Your task to perform on an android device: uninstall "Upside-Cash back on gas & food" Image 0: 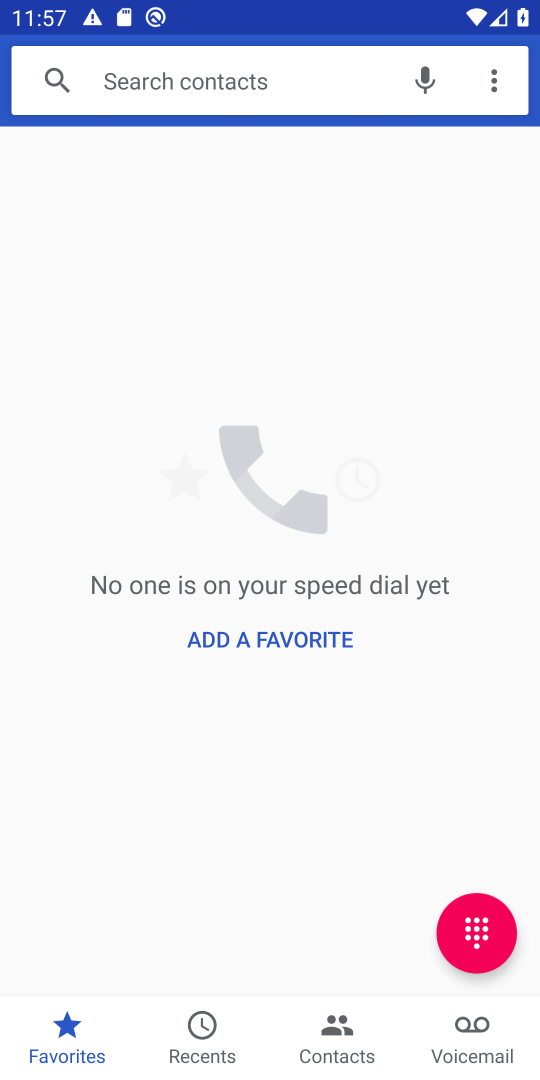
Step 0: press home button
Your task to perform on an android device: uninstall "Upside-Cash back on gas & food" Image 1: 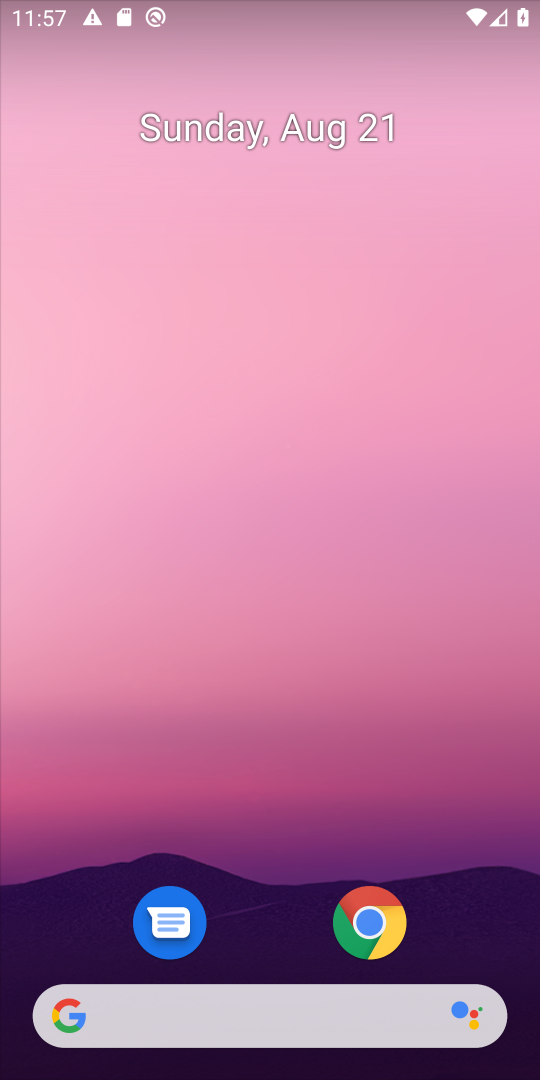
Step 1: drag from (273, 958) to (470, 135)
Your task to perform on an android device: uninstall "Upside-Cash back on gas & food" Image 2: 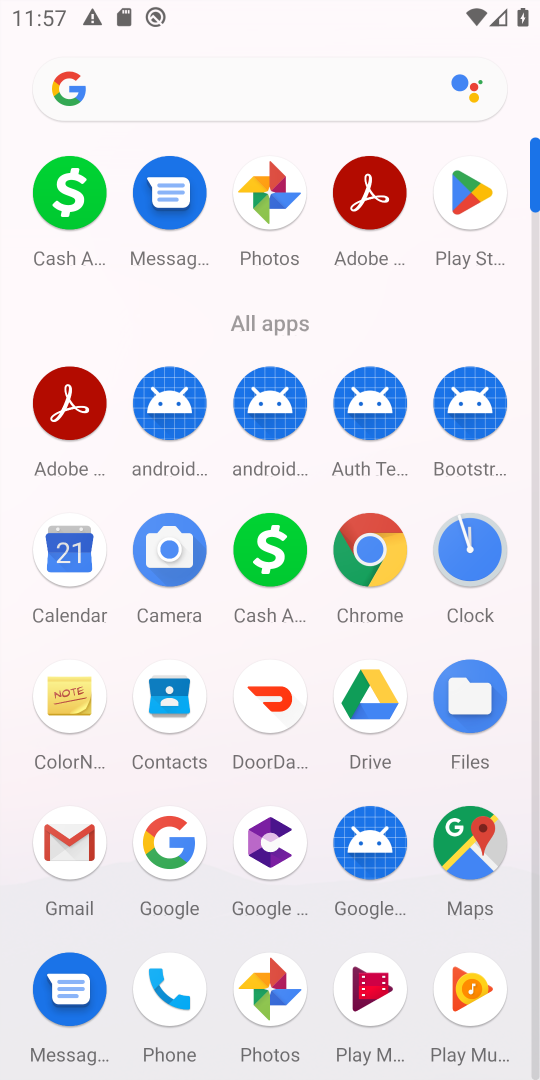
Step 2: click (446, 195)
Your task to perform on an android device: uninstall "Upside-Cash back on gas & food" Image 3: 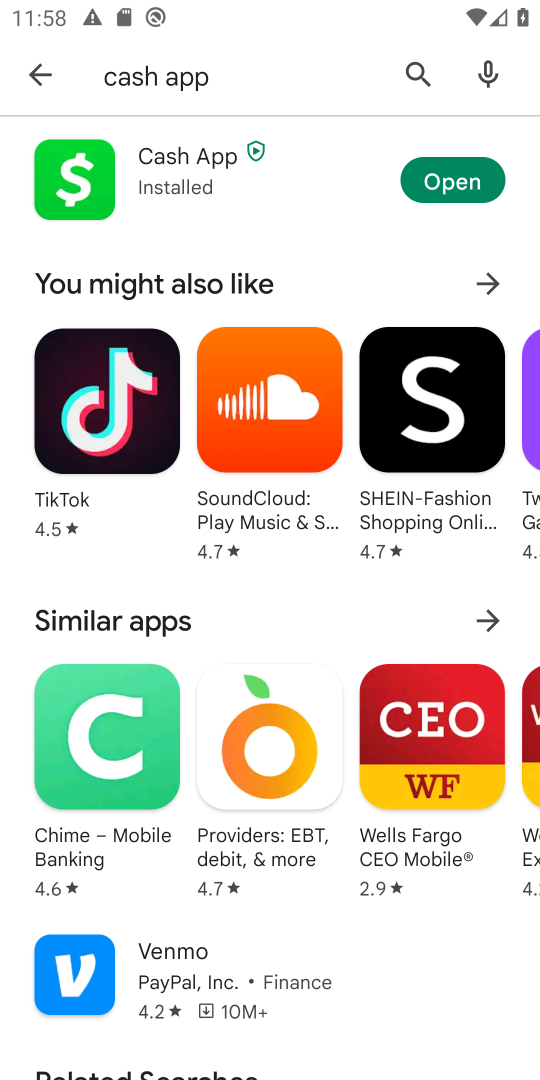
Step 3: click (23, 74)
Your task to perform on an android device: uninstall "Upside-Cash back on gas & food" Image 4: 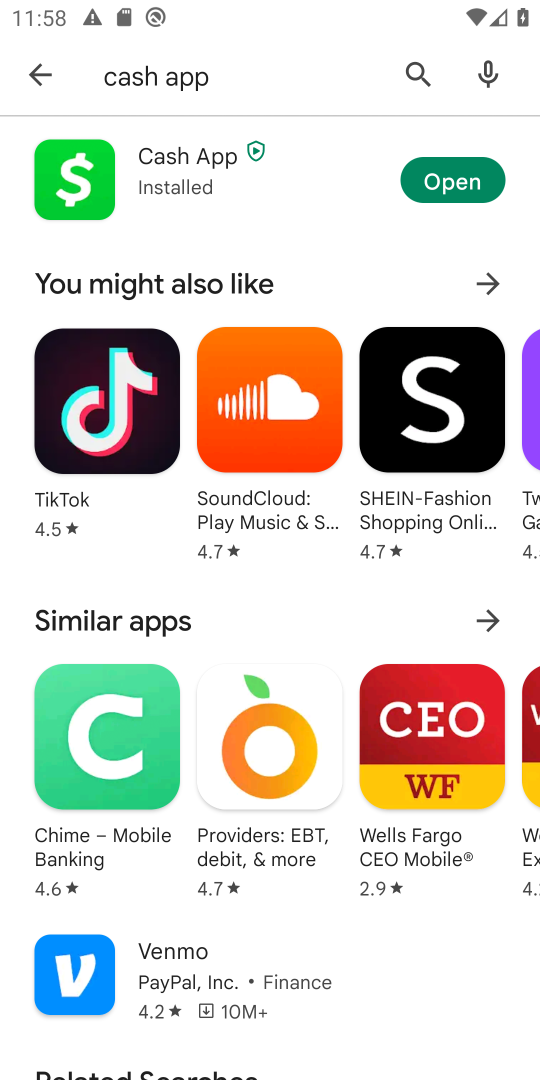
Step 4: click (423, 67)
Your task to perform on an android device: uninstall "Upside-Cash back on gas & food" Image 5: 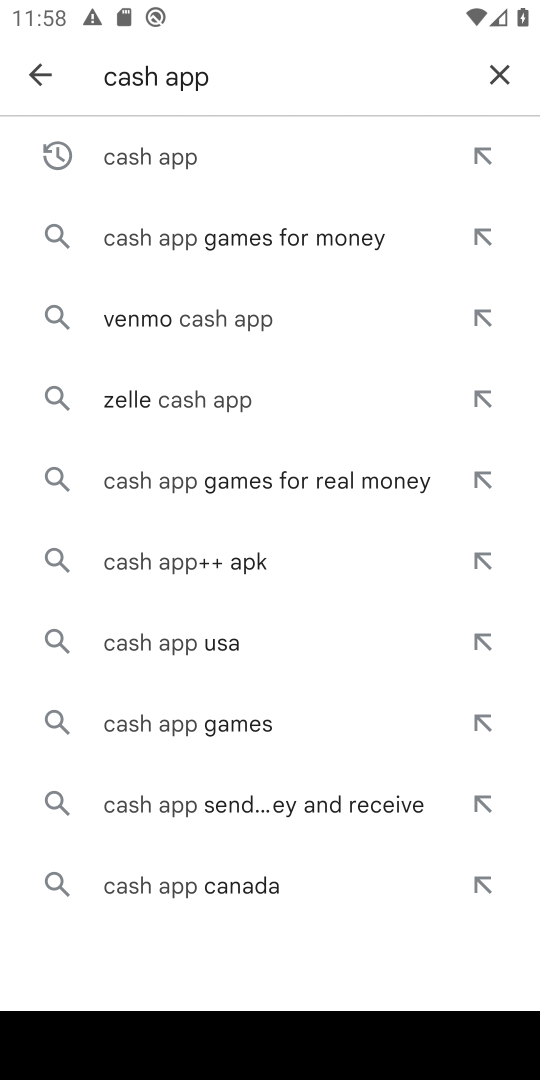
Step 5: click (492, 60)
Your task to perform on an android device: uninstall "Upside-Cash back on gas & food" Image 6: 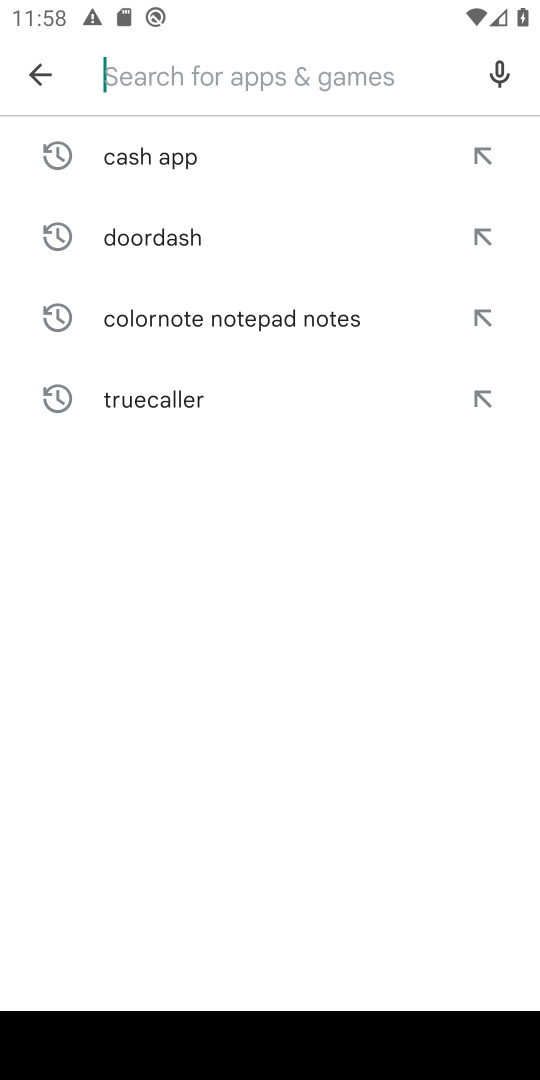
Step 6: type "Upside-Cash back on gas & food"
Your task to perform on an android device: uninstall "Upside-Cash back on gas & food" Image 7: 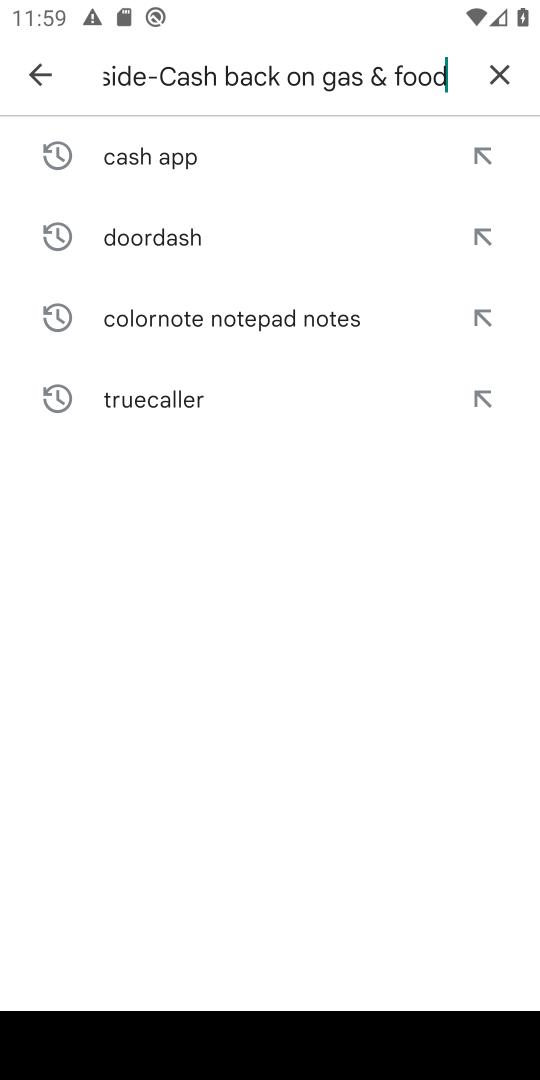
Step 7: type ""
Your task to perform on an android device: uninstall "Upside-Cash back on gas & food" Image 8: 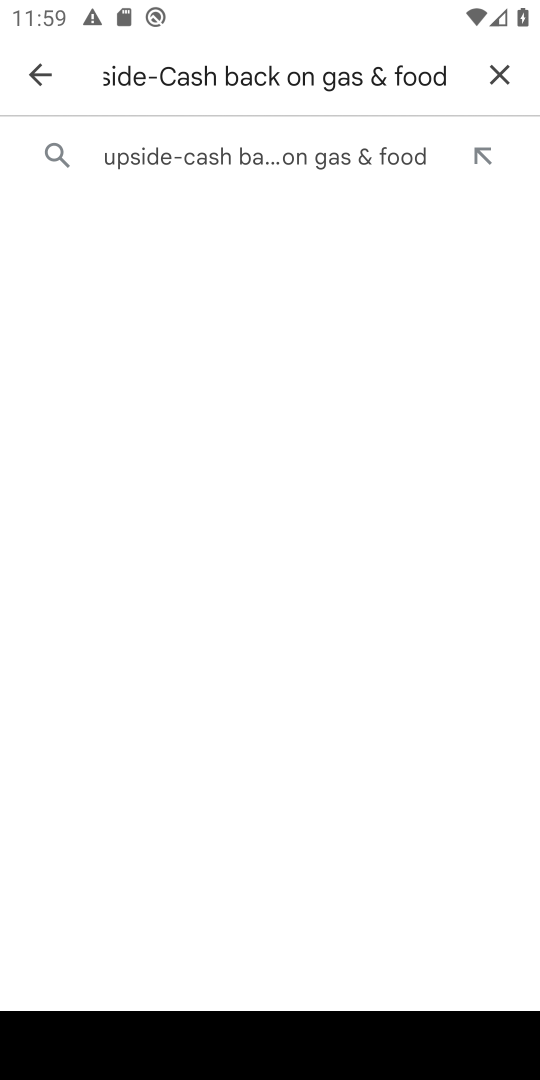
Step 8: click (252, 159)
Your task to perform on an android device: uninstall "Upside-Cash back on gas & food" Image 9: 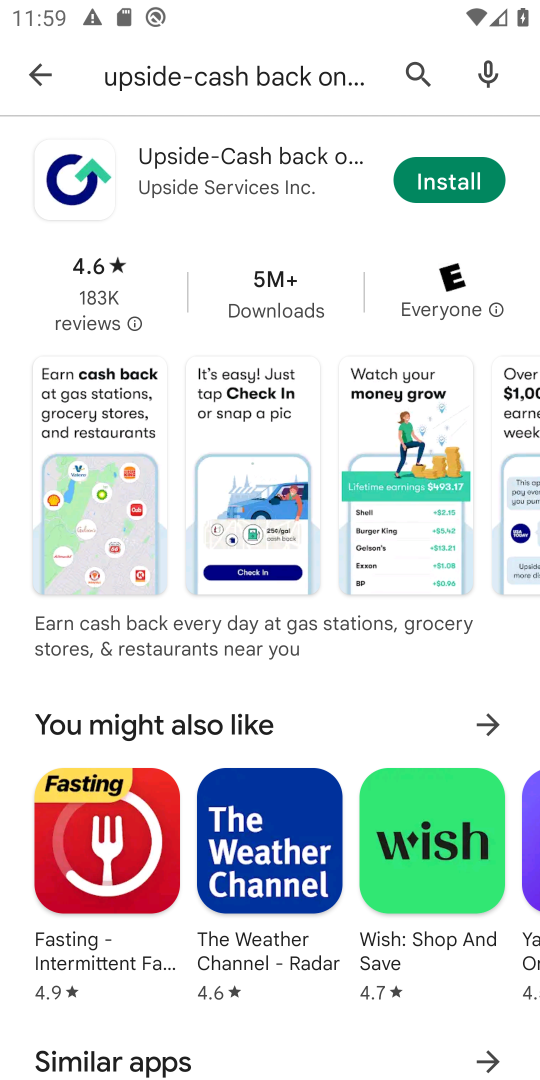
Step 9: task complete